Your task to perform on an android device: change the clock style Image 0: 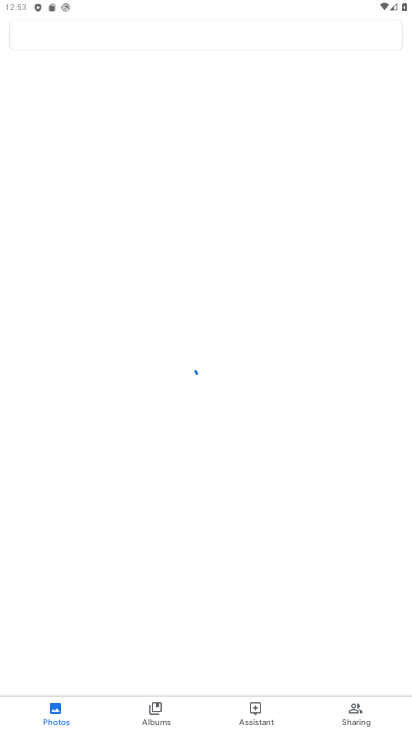
Step 0: press home button
Your task to perform on an android device: change the clock style Image 1: 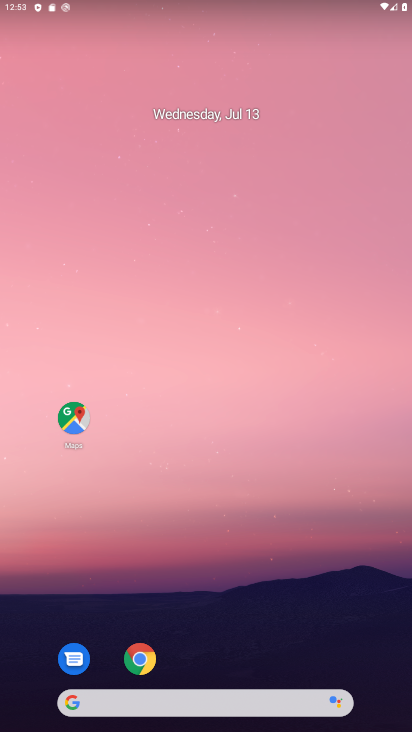
Step 1: drag from (39, 719) to (256, 32)
Your task to perform on an android device: change the clock style Image 2: 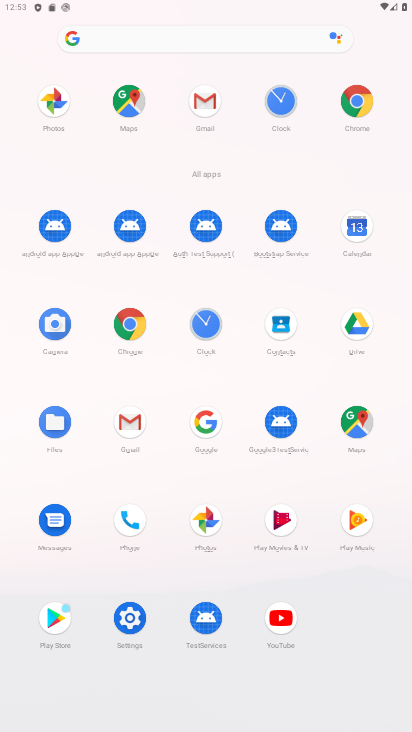
Step 2: click (214, 335)
Your task to perform on an android device: change the clock style Image 3: 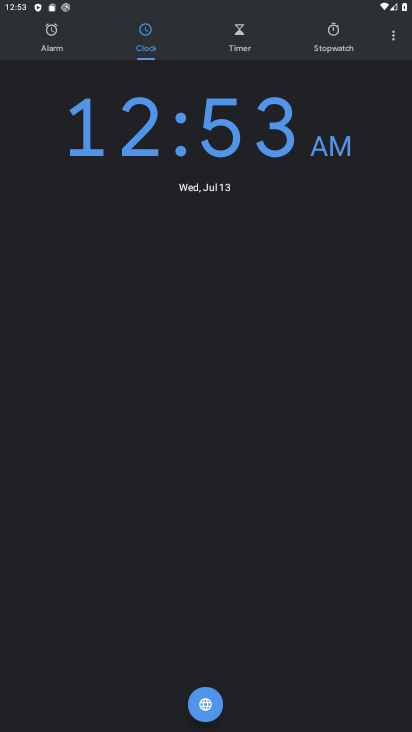
Step 3: click (393, 39)
Your task to perform on an android device: change the clock style Image 4: 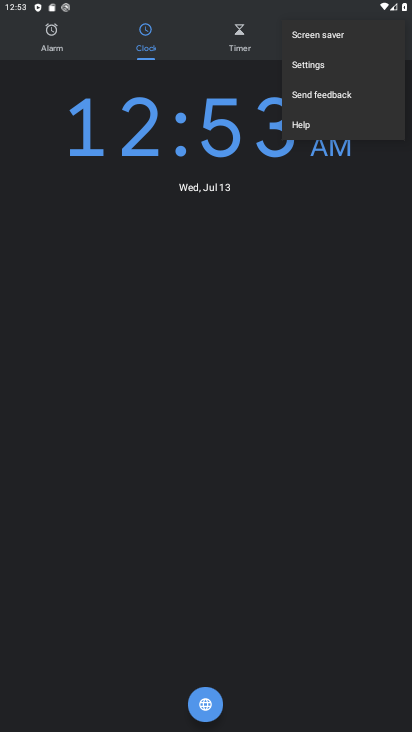
Step 4: click (333, 64)
Your task to perform on an android device: change the clock style Image 5: 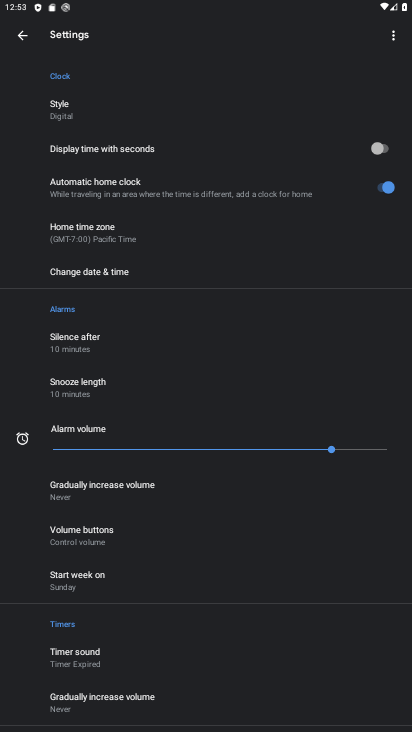
Step 5: click (90, 113)
Your task to perform on an android device: change the clock style Image 6: 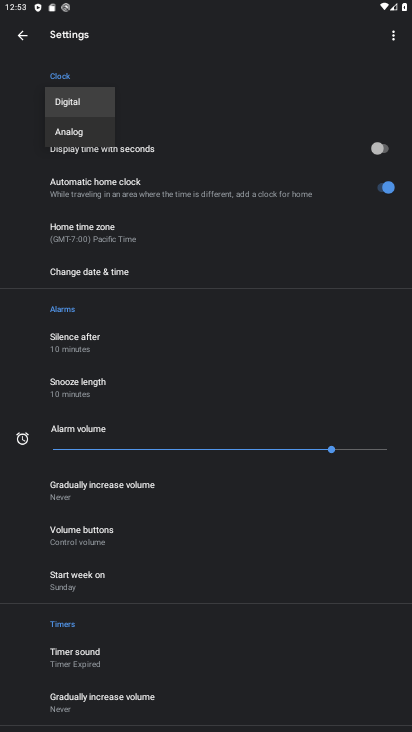
Step 6: click (89, 129)
Your task to perform on an android device: change the clock style Image 7: 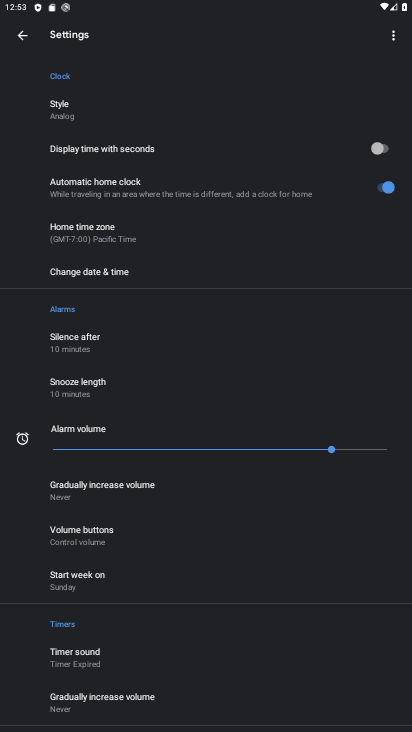
Step 7: task complete